Your task to perform on an android device: Go to settings Image 0: 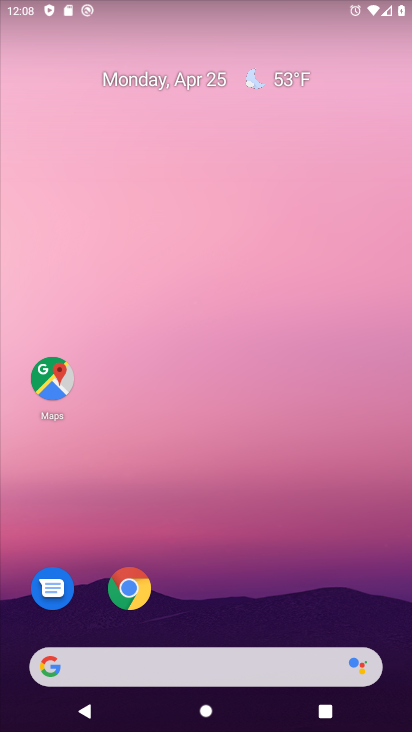
Step 0: drag from (207, 612) to (226, 274)
Your task to perform on an android device: Go to settings Image 1: 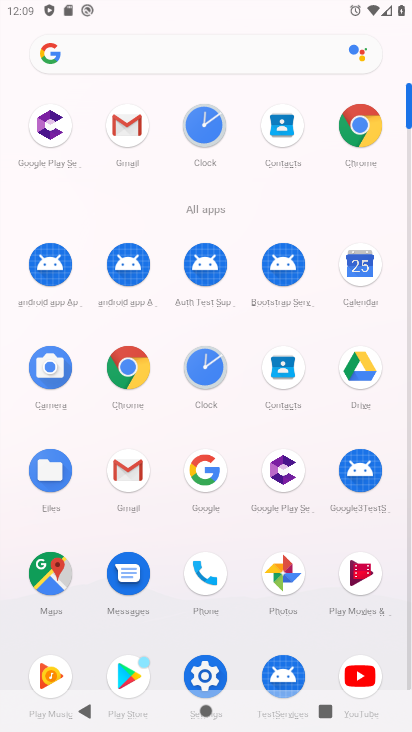
Step 1: click (204, 660)
Your task to perform on an android device: Go to settings Image 2: 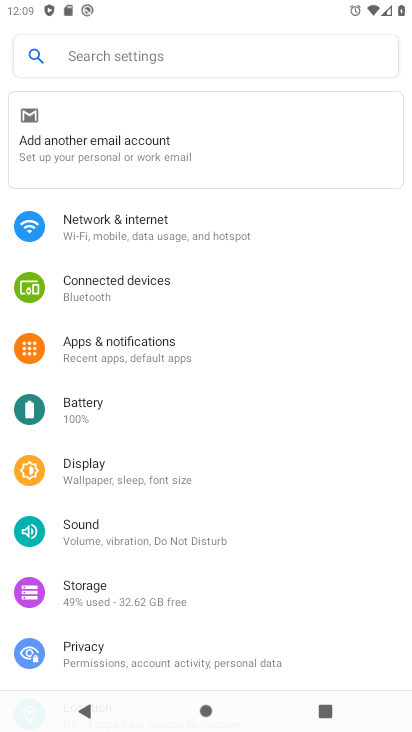
Step 2: task complete